Your task to perform on an android device: What's the weather today? Image 0: 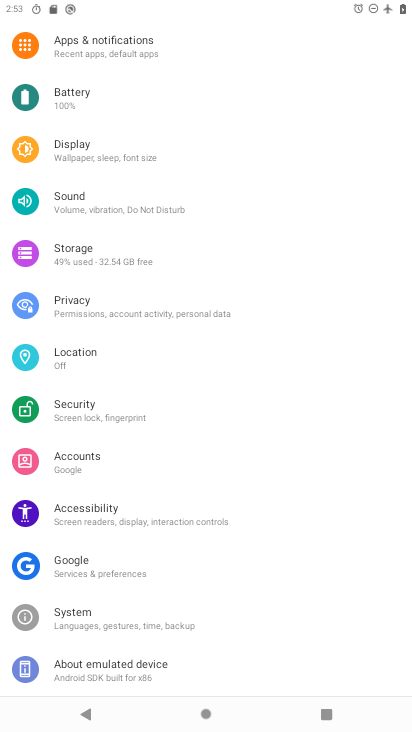
Step 0: press home button
Your task to perform on an android device: What's the weather today? Image 1: 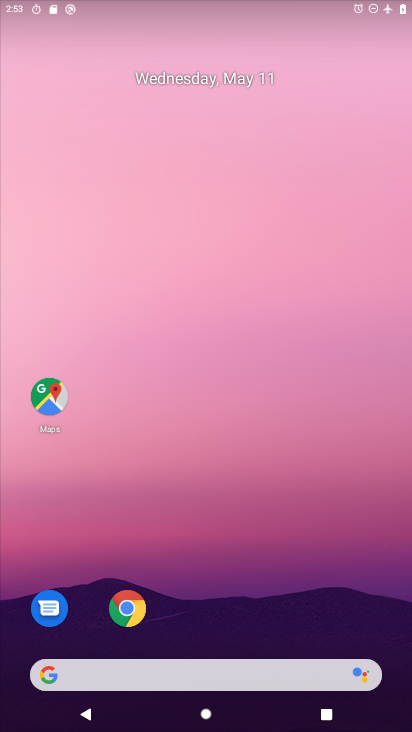
Step 1: drag from (240, 530) to (231, 74)
Your task to perform on an android device: What's the weather today? Image 2: 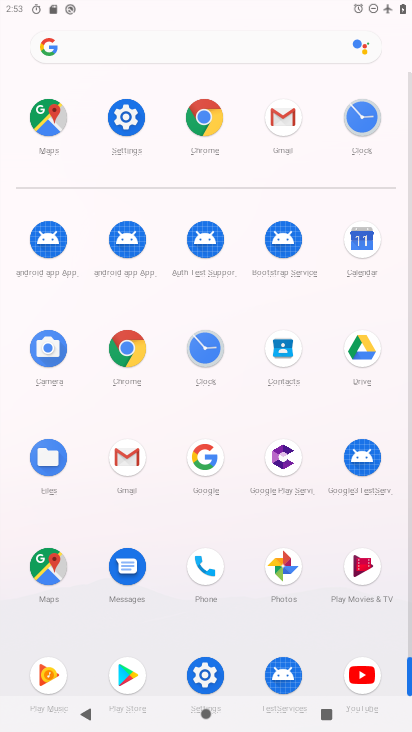
Step 2: click (202, 479)
Your task to perform on an android device: What's the weather today? Image 3: 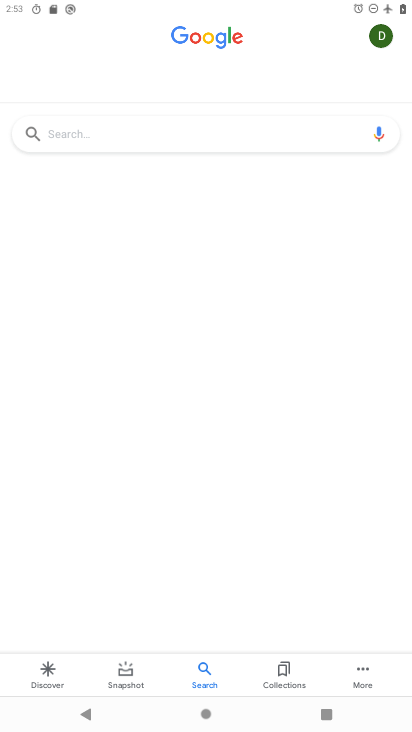
Step 3: click (247, 141)
Your task to perform on an android device: What's the weather today? Image 4: 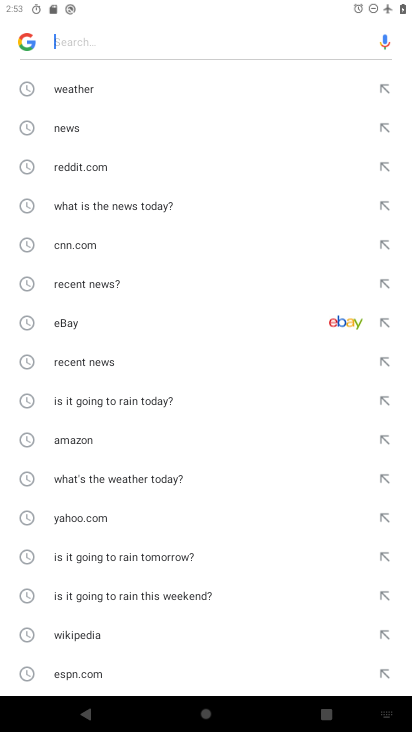
Step 4: click (224, 83)
Your task to perform on an android device: What's the weather today? Image 5: 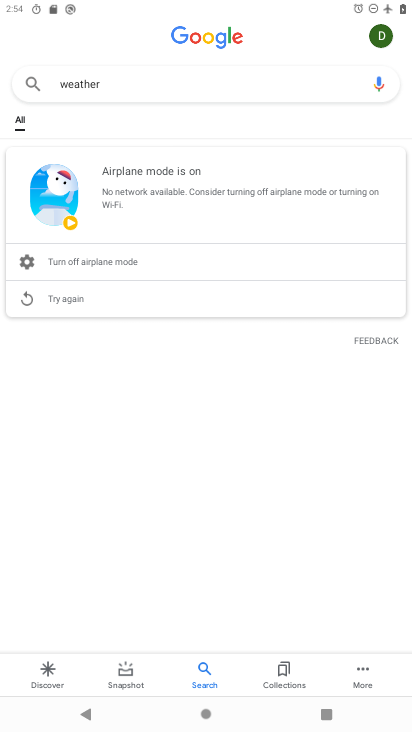
Step 5: task complete